Your task to perform on an android device: Go to Yahoo.com Image 0: 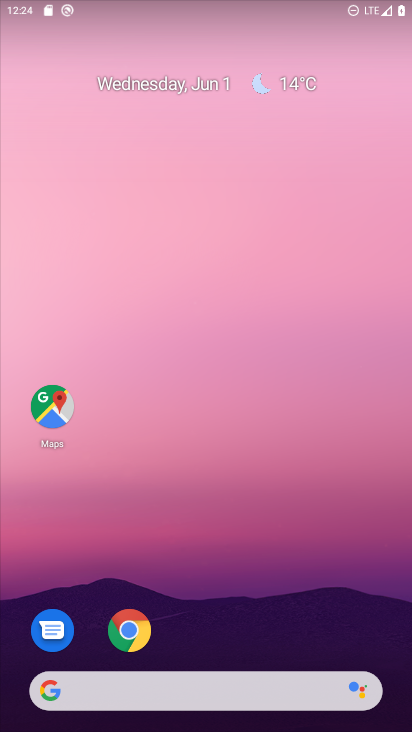
Step 0: click (130, 629)
Your task to perform on an android device: Go to Yahoo.com Image 1: 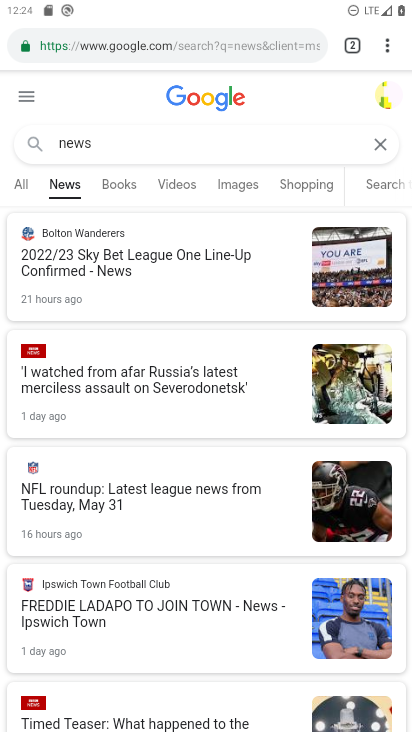
Step 1: click (157, 42)
Your task to perform on an android device: Go to Yahoo.com Image 2: 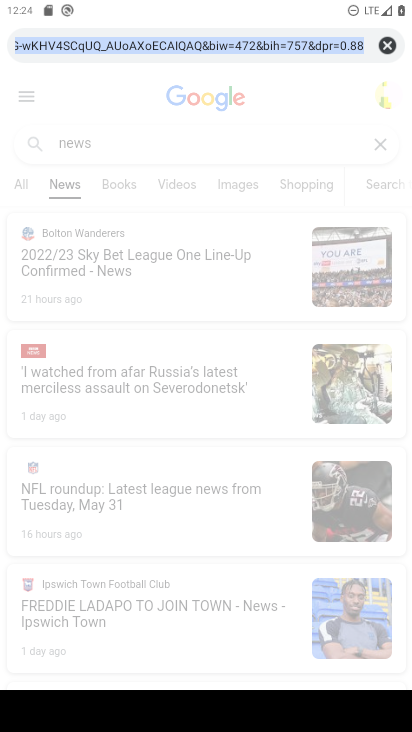
Step 2: type "yahoo.com"
Your task to perform on an android device: Go to Yahoo.com Image 3: 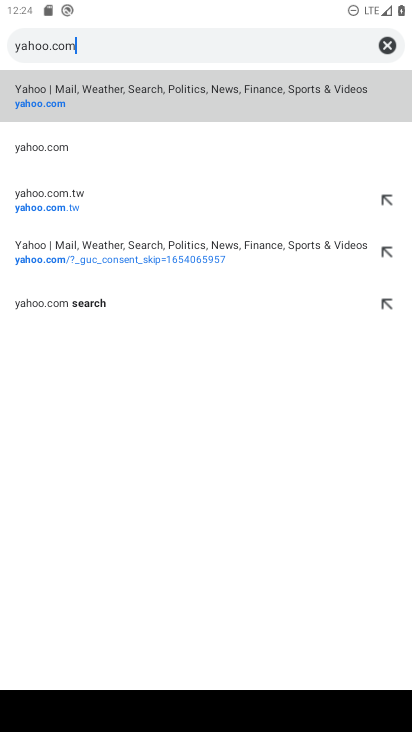
Step 3: click (51, 105)
Your task to perform on an android device: Go to Yahoo.com Image 4: 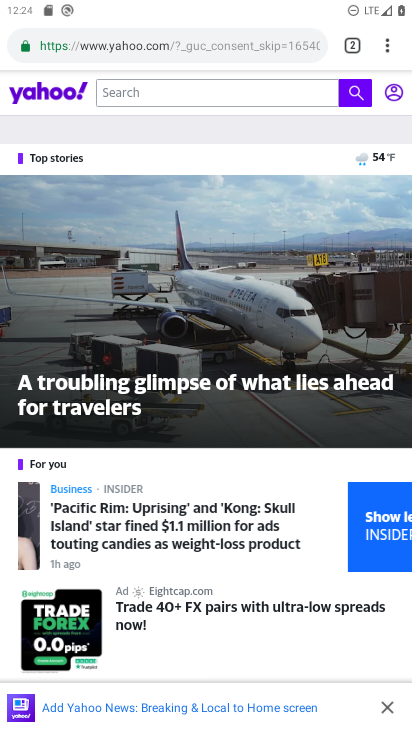
Step 4: task complete